Your task to perform on an android device: Show me recent news Image 0: 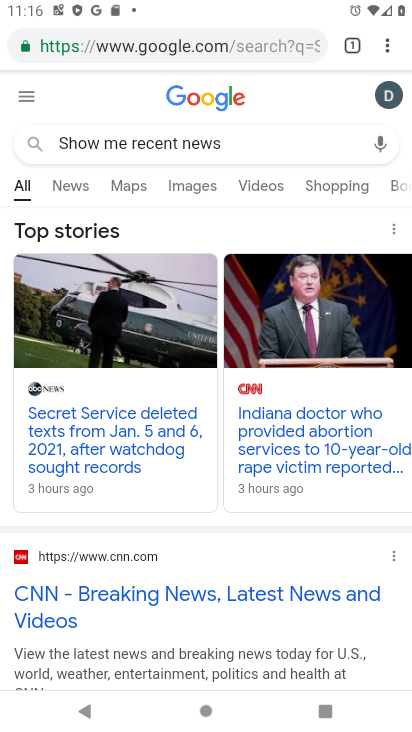
Step 0: press home button
Your task to perform on an android device: Show me recent news Image 1: 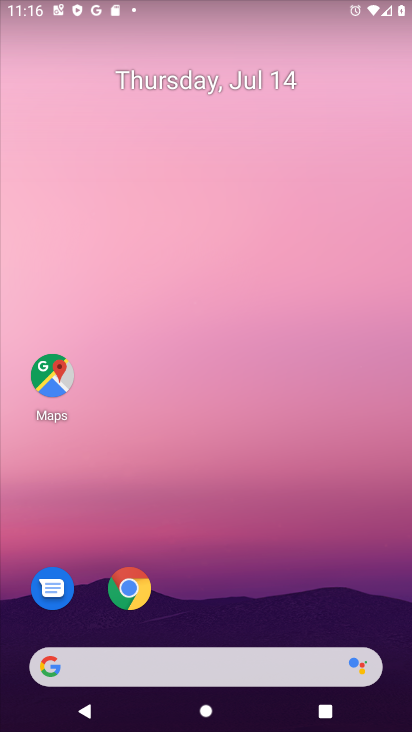
Step 1: click (141, 579)
Your task to perform on an android device: Show me recent news Image 2: 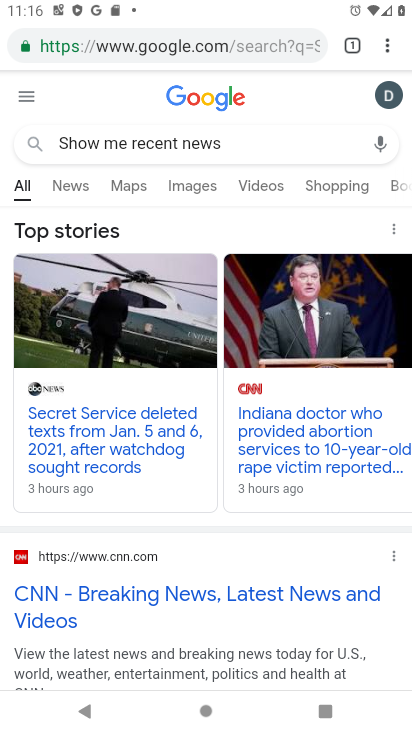
Step 2: task complete